Your task to perform on an android device: Open Chrome and go to settings Image 0: 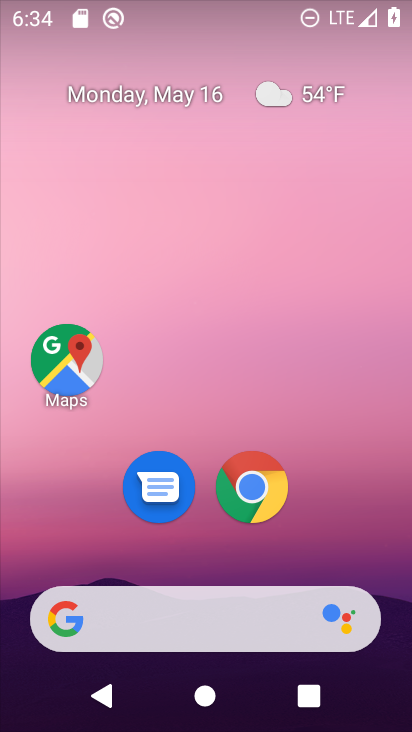
Step 0: click (259, 488)
Your task to perform on an android device: Open Chrome and go to settings Image 1: 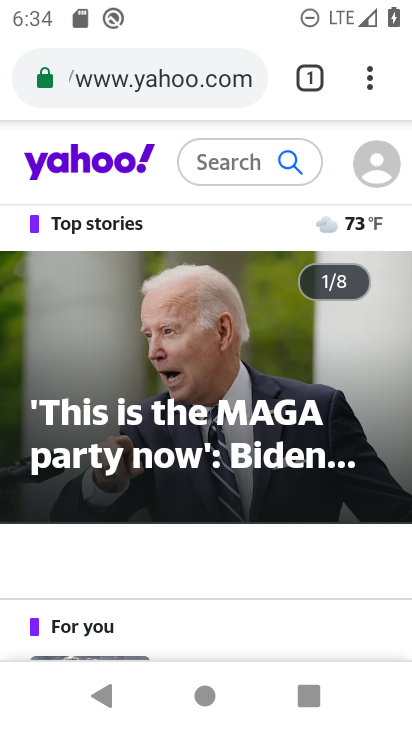
Step 1: click (368, 72)
Your task to perform on an android device: Open Chrome and go to settings Image 2: 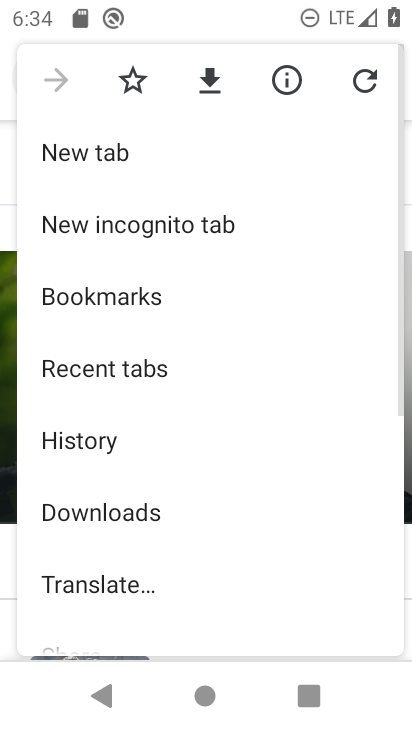
Step 2: drag from (132, 607) to (130, 253)
Your task to perform on an android device: Open Chrome and go to settings Image 3: 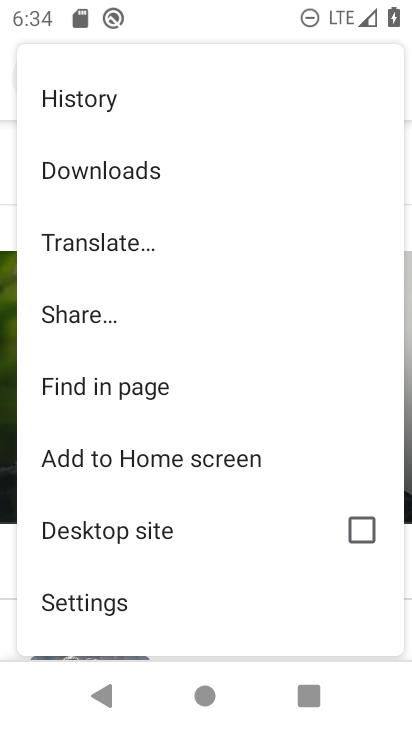
Step 3: click (90, 605)
Your task to perform on an android device: Open Chrome and go to settings Image 4: 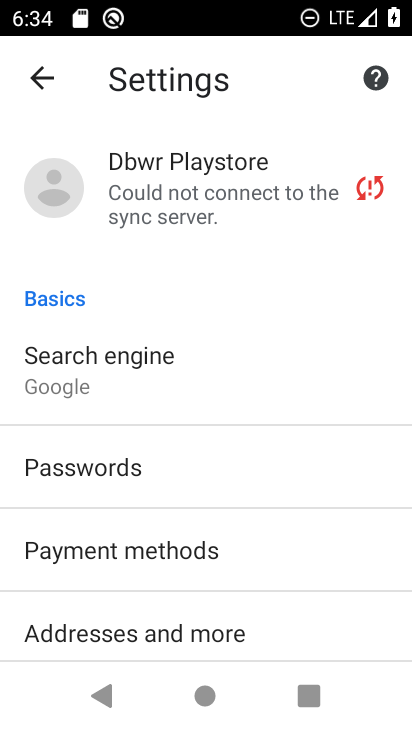
Step 4: task complete